Your task to perform on an android device: Open internet settings Image 0: 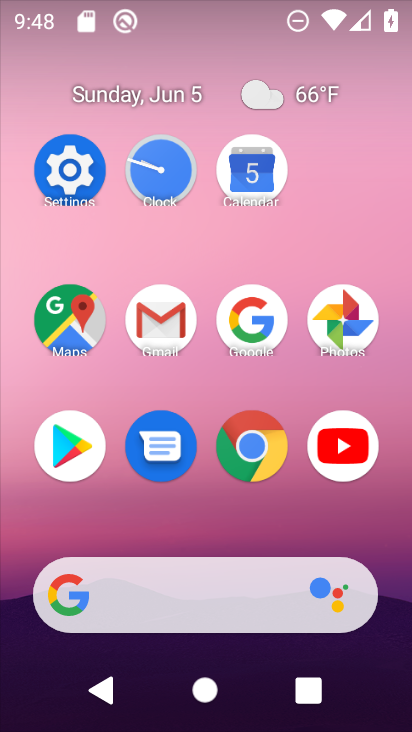
Step 0: click (65, 171)
Your task to perform on an android device: Open internet settings Image 1: 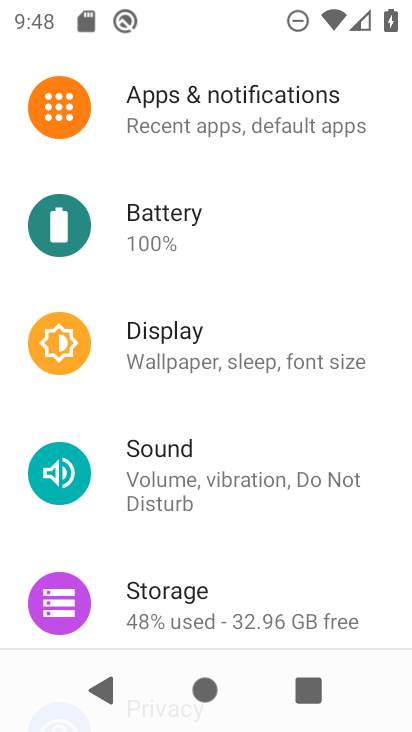
Step 1: drag from (301, 178) to (317, 475)
Your task to perform on an android device: Open internet settings Image 2: 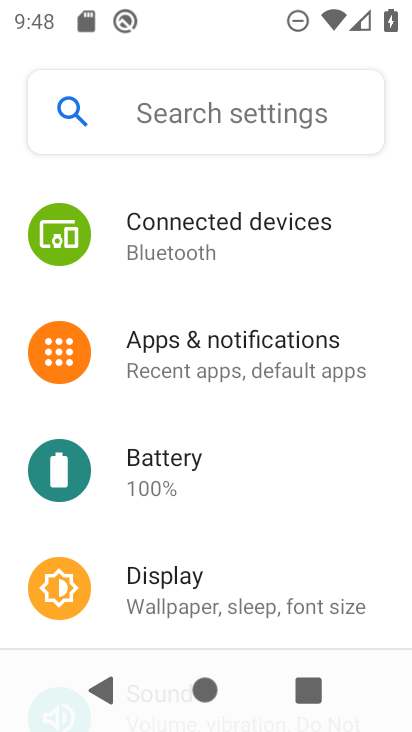
Step 2: drag from (315, 161) to (318, 483)
Your task to perform on an android device: Open internet settings Image 3: 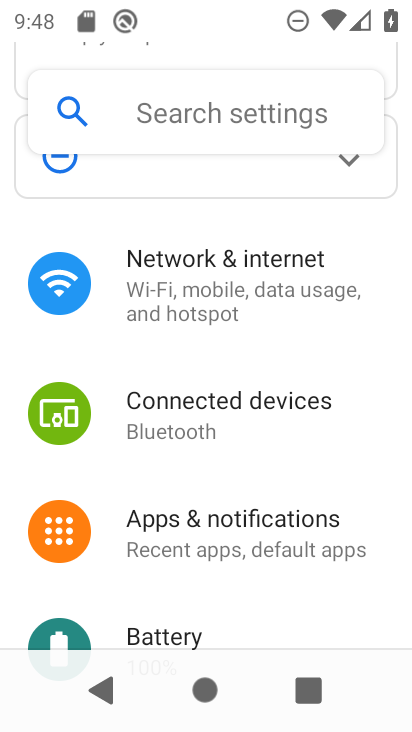
Step 3: click (269, 270)
Your task to perform on an android device: Open internet settings Image 4: 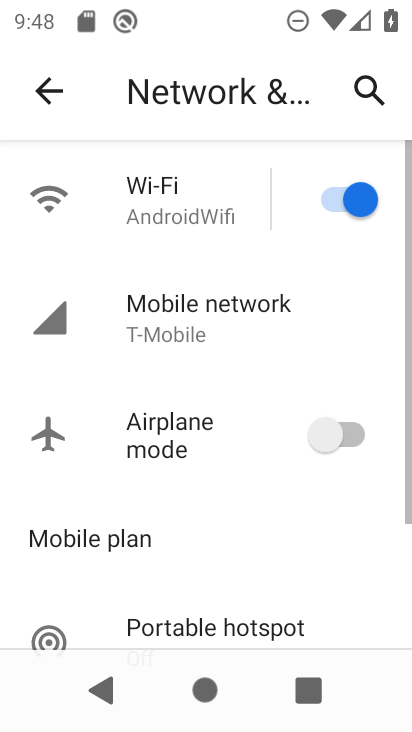
Step 4: task complete